Your task to perform on an android device: Show me popular games on the Play Store Image 0: 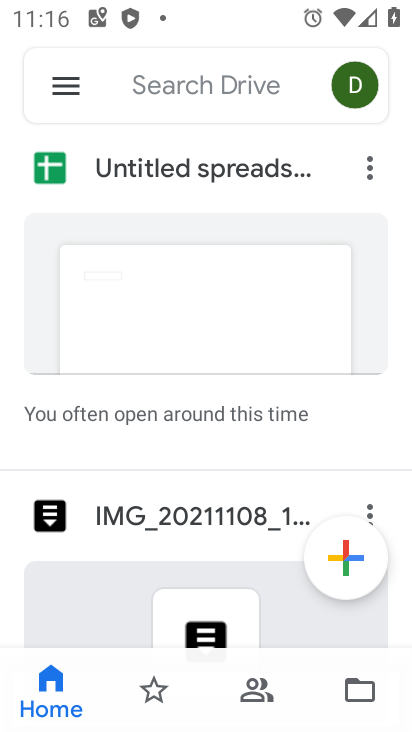
Step 0: press home button
Your task to perform on an android device: Show me popular games on the Play Store Image 1: 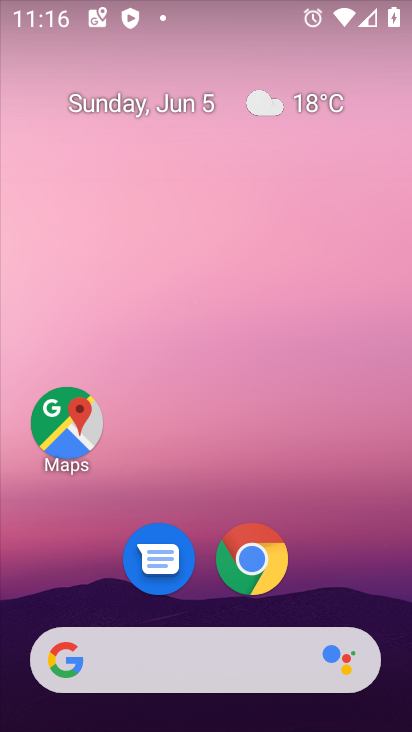
Step 1: drag from (395, 707) to (252, 0)
Your task to perform on an android device: Show me popular games on the Play Store Image 2: 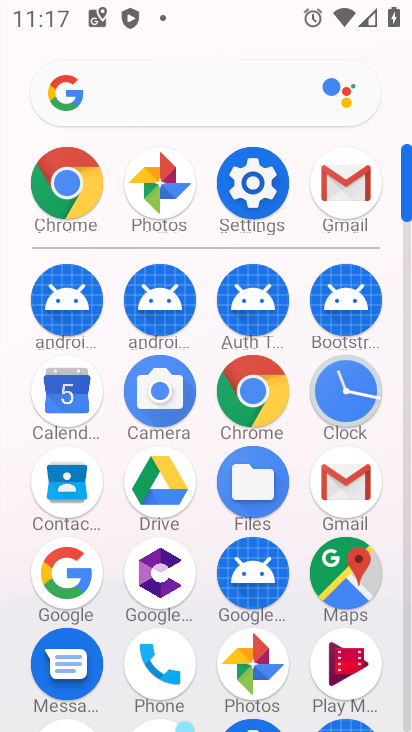
Step 2: click (202, 279)
Your task to perform on an android device: Show me popular games on the Play Store Image 3: 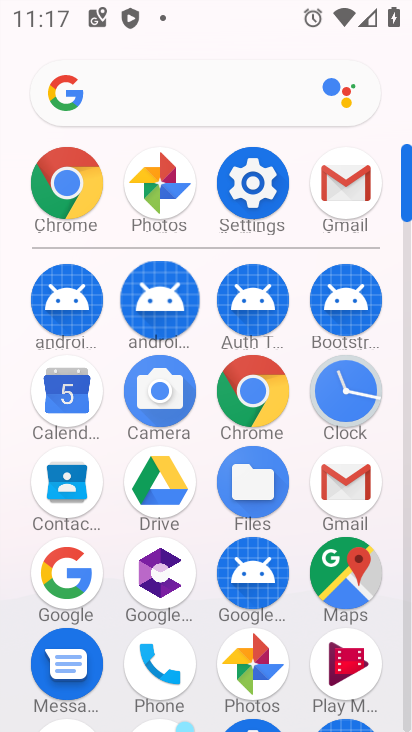
Step 3: drag from (212, 640) to (196, 314)
Your task to perform on an android device: Show me popular games on the Play Store Image 4: 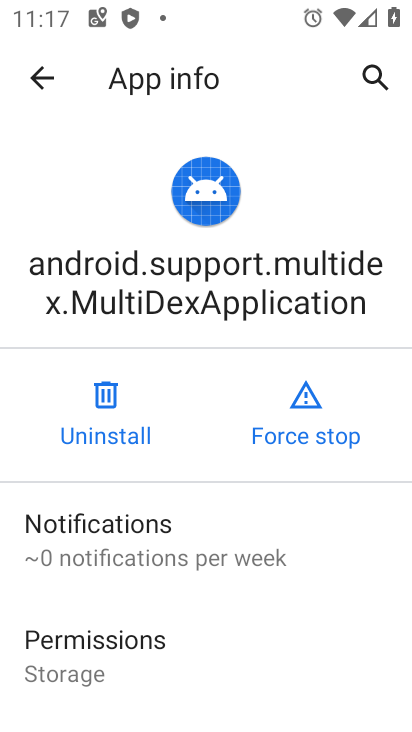
Step 4: click (43, 81)
Your task to perform on an android device: Show me popular games on the Play Store Image 5: 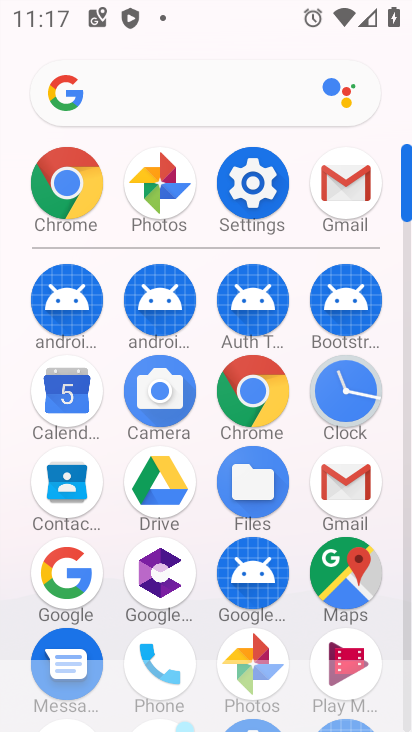
Step 5: drag from (200, 592) to (205, 188)
Your task to perform on an android device: Show me popular games on the Play Store Image 6: 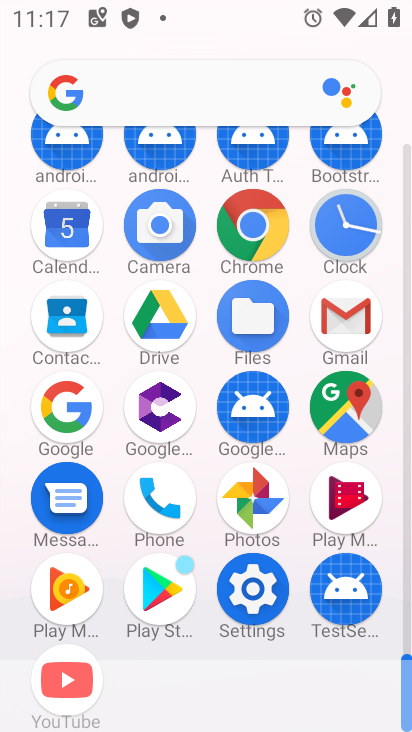
Step 6: click (177, 573)
Your task to perform on an android device: Show me popular games on the Play Store Image 7: 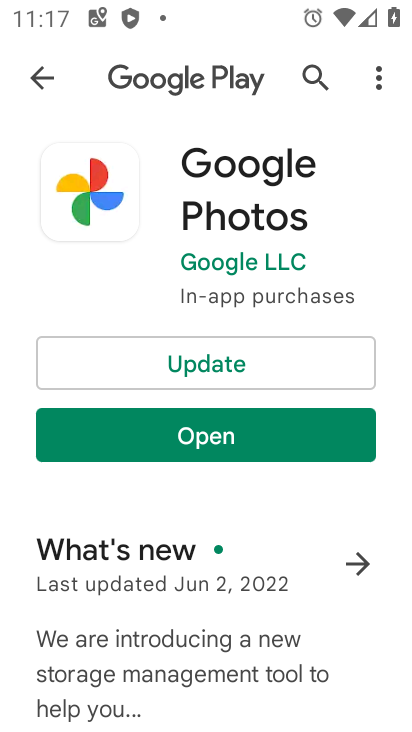
Step 7: click (54, 86)
Your task to perform on an android device: Show me popular games on the Play Store Image 8: 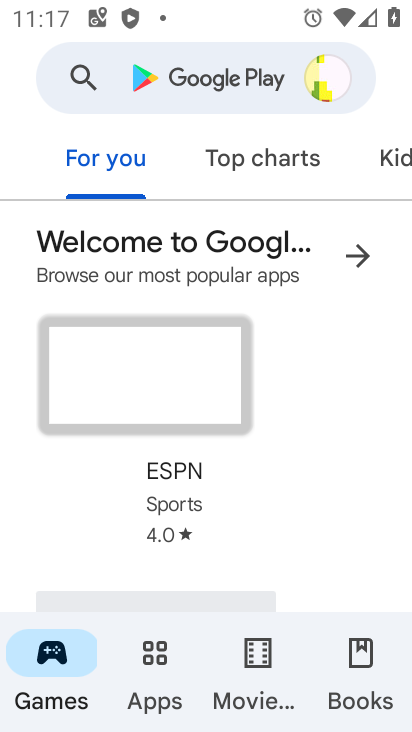
Step 8: click (207, 73)
Your task to perform on an android device: Show me popular games on the Play Store Image 9: 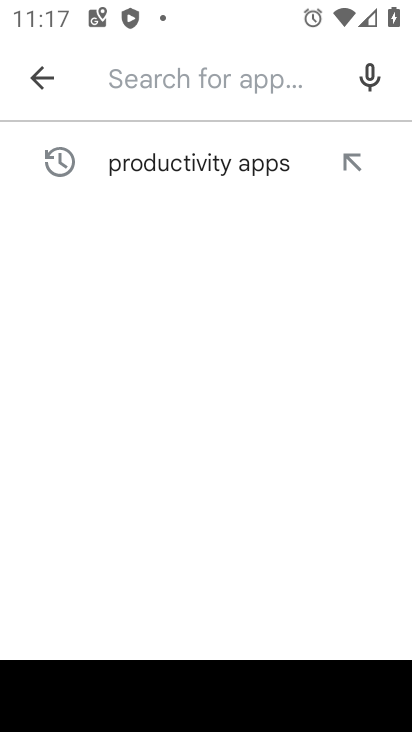
Step 9: type "popular games"
Your task to perform on an android device: Show me popular games on the Play Store Image 10: 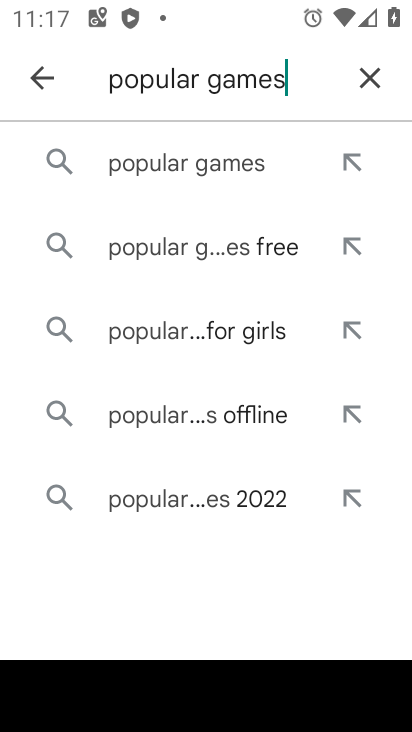
Step 10: click (174, 168)
Your task to perform on an android device: Show me popular games on the Play Store Image 11: 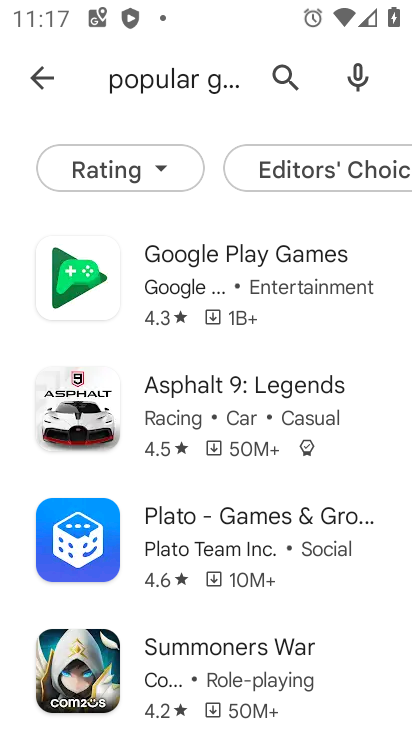
Step 11: task complete